Your task to perform on an android device: Search for panasonic triple a on costco, select the first entry, add it to the cart, then select checkout. Image 0: 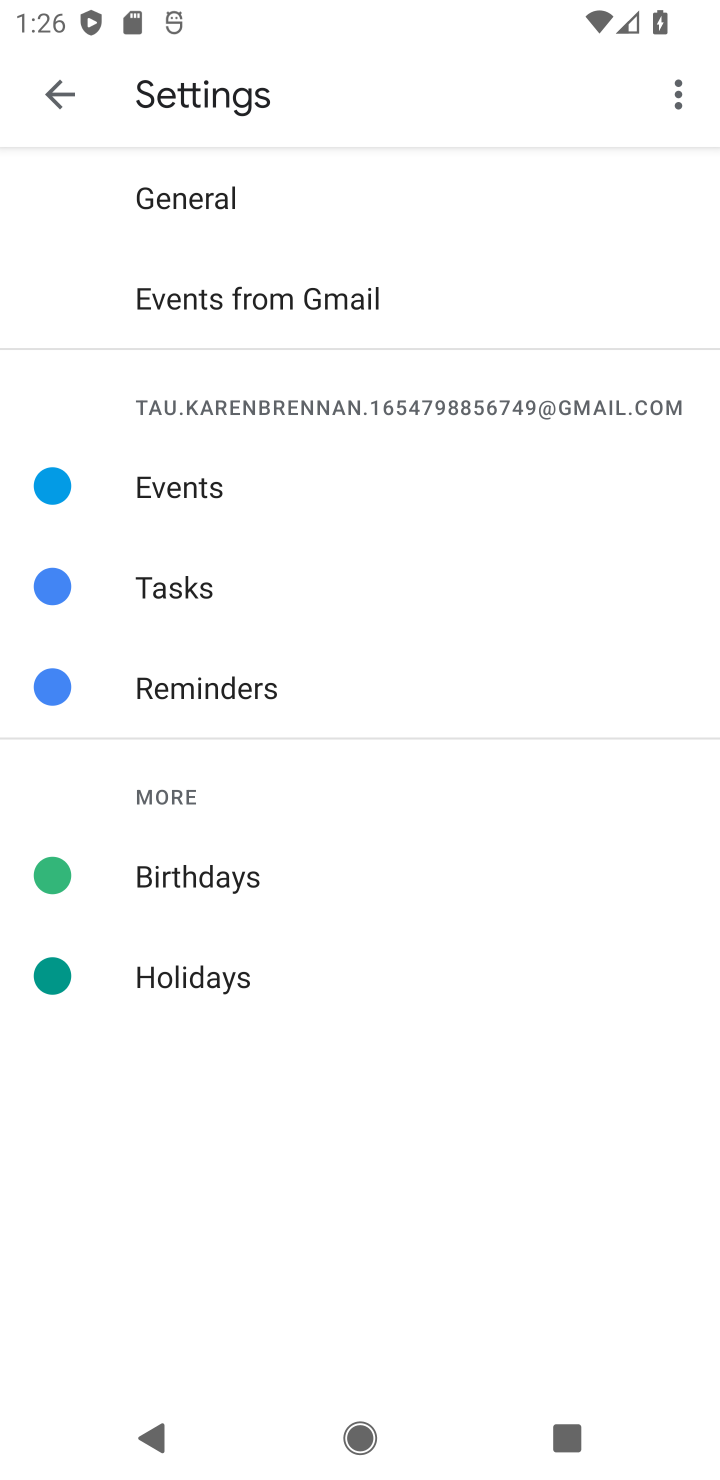
Step 0: press home button
Your task to perform on an android device: Search for panasonic triple a on costco, select the first entry, add it to the cart, then select checkout. Image 1: 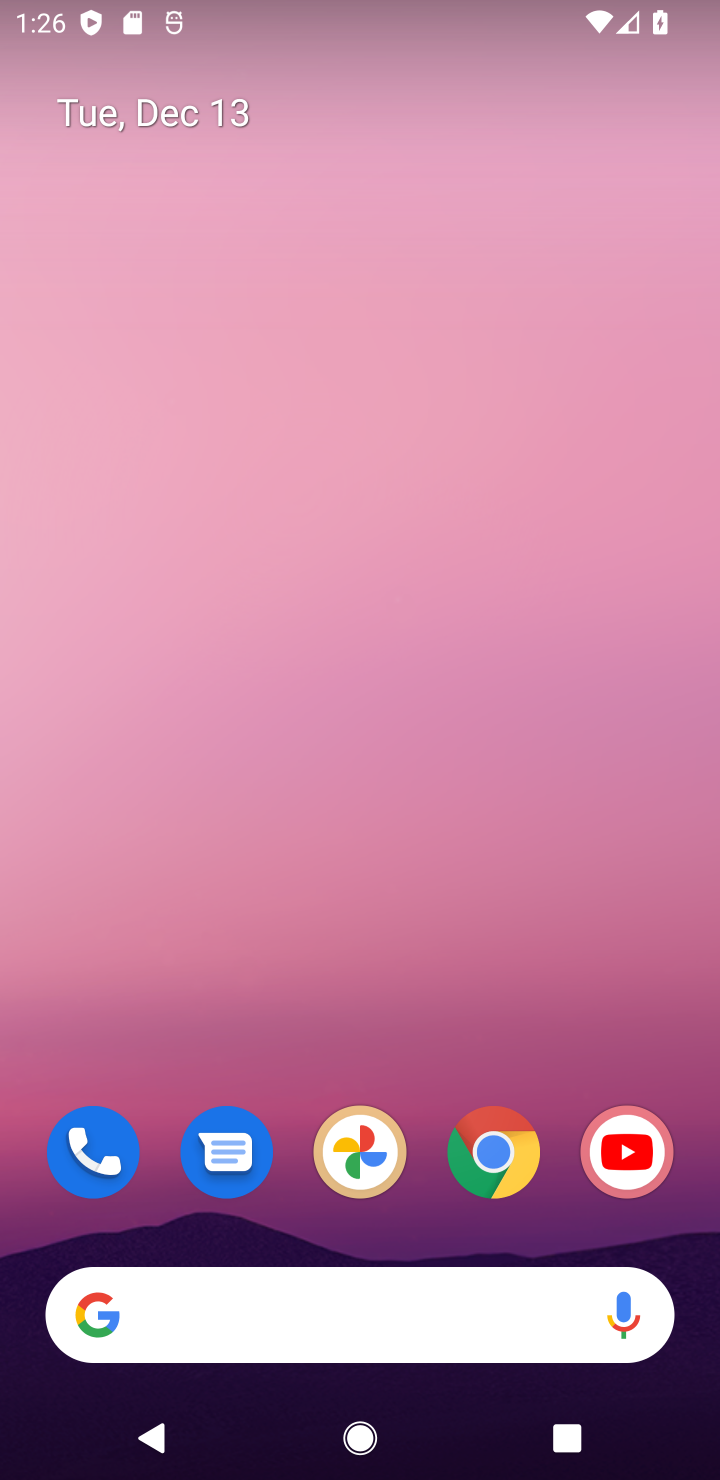
Step 1: drag from (300, 1283) to (300, 237)
Your task to perform on an android device: Search for panasonic triple a on costco, select the first entry, add it to the cart, then select checkout. Image 2: 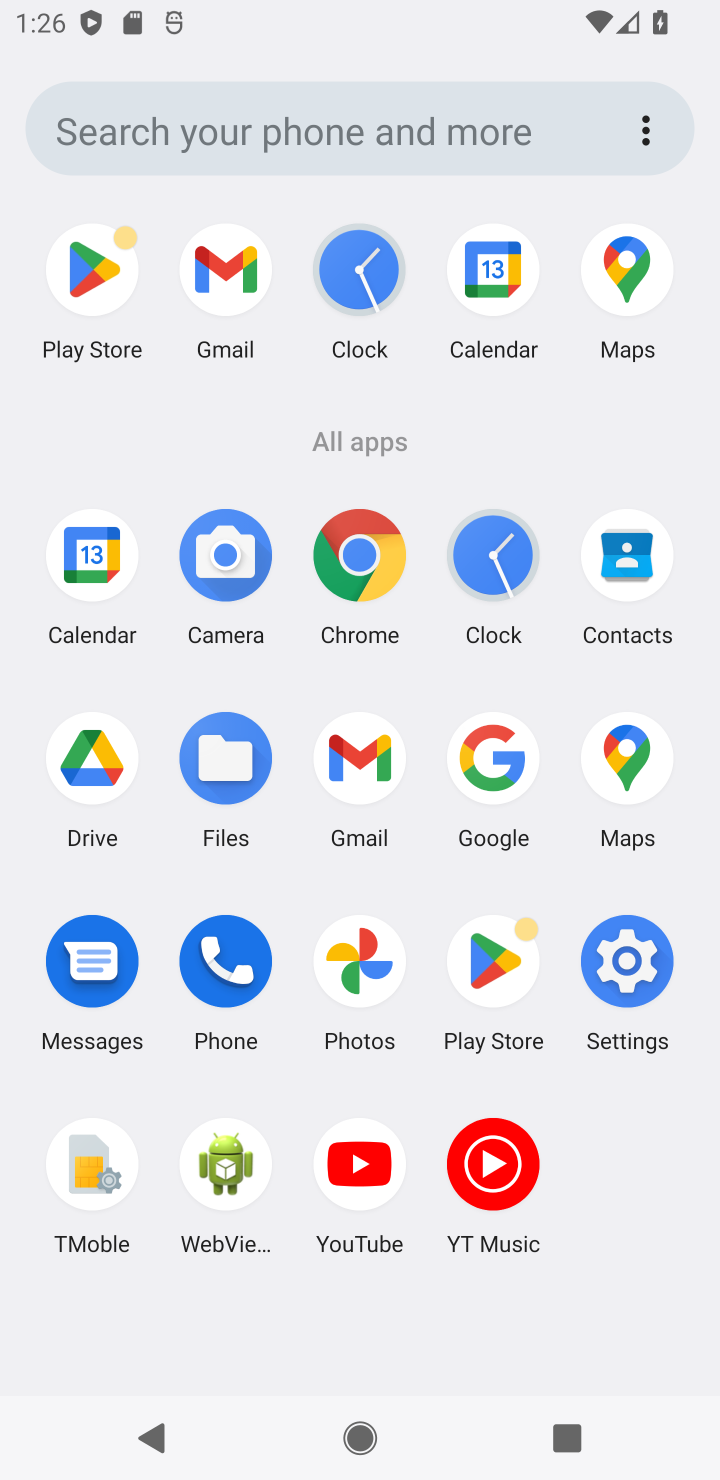
Step 2: click (513, 736)
Your task to perform on an android device: Search for panasonic triple a on costco, select the first entry, add it to the cart, then select checkout. Image 3: 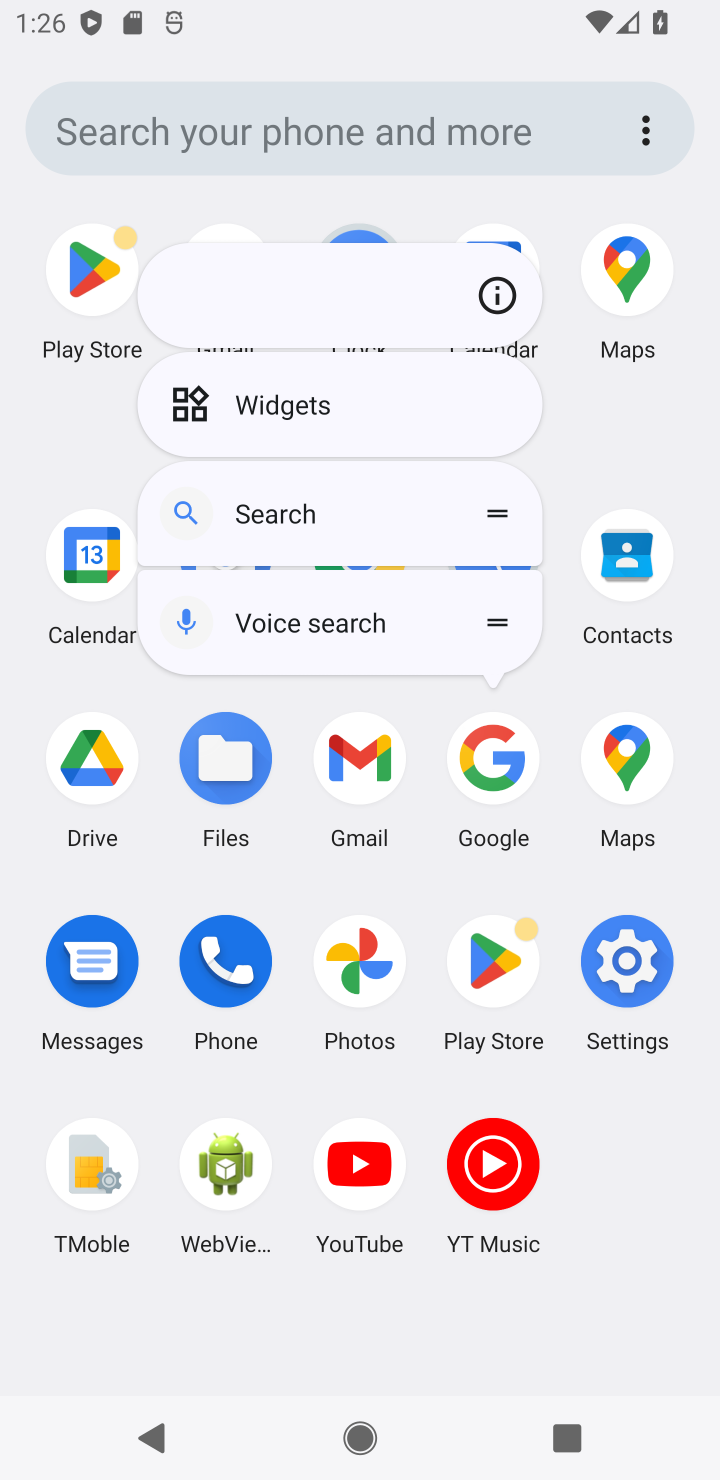
Step 3: click (489, 772)
Your task to perform on an android device: Search for panasonic triple a on costco, select the first entry, add it to the cart, then select checkout. Image 4: 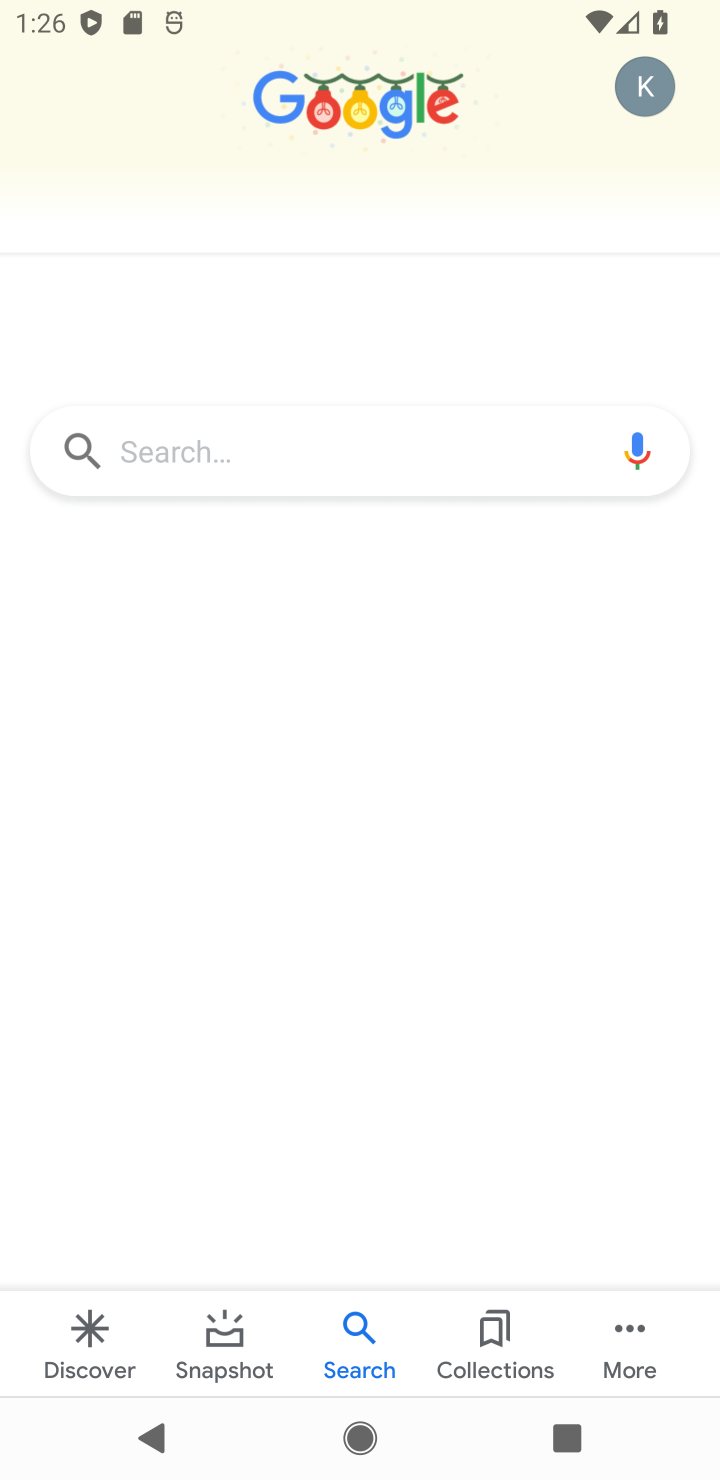
Step 4: click (237, 450)
Your task to perform on an android device: Search for panasonic triple a on costco, select the first entry, add it to the cart, then select checkout. Image 5: 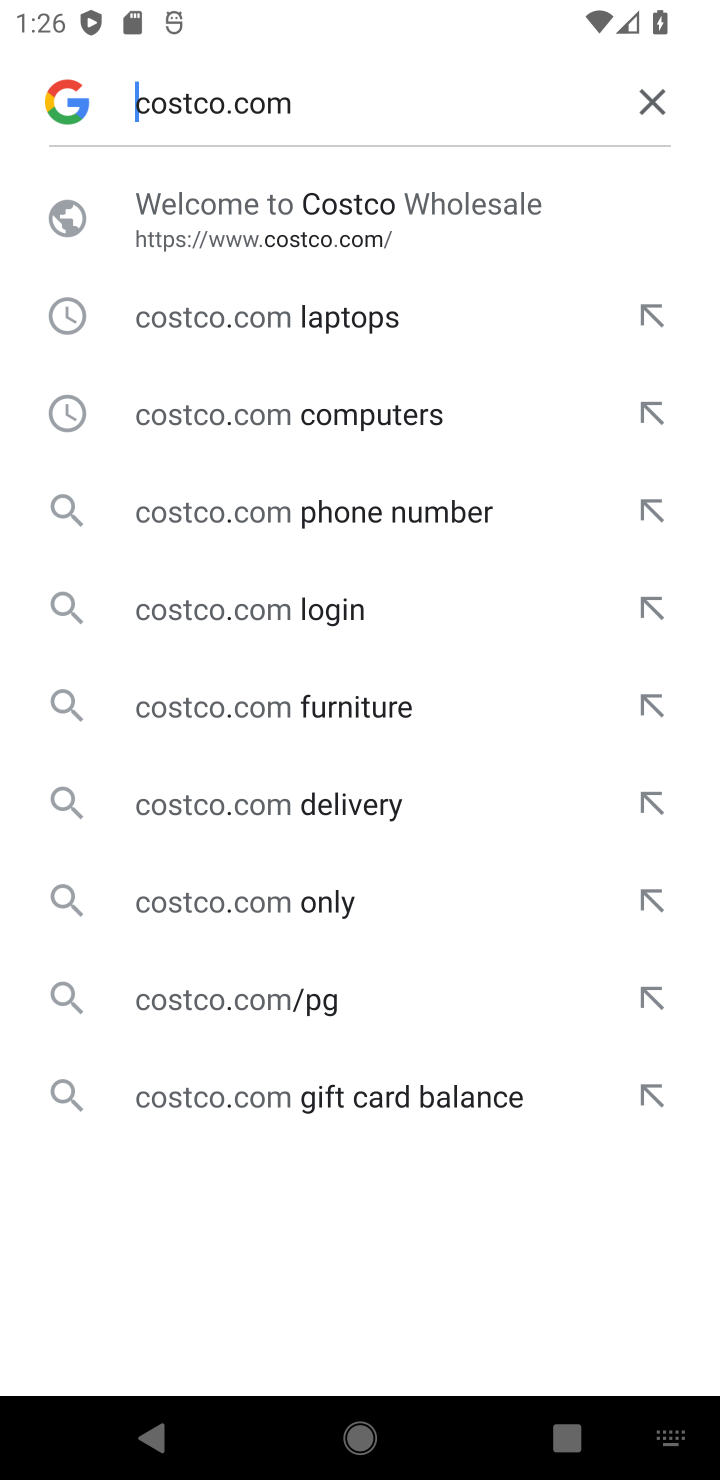
Step 5: click (258, 608)
Your task to perform on an android device: Search for panasonic triple a on costco, select the first entry, add it to the cart, then select checkout. Image 6: 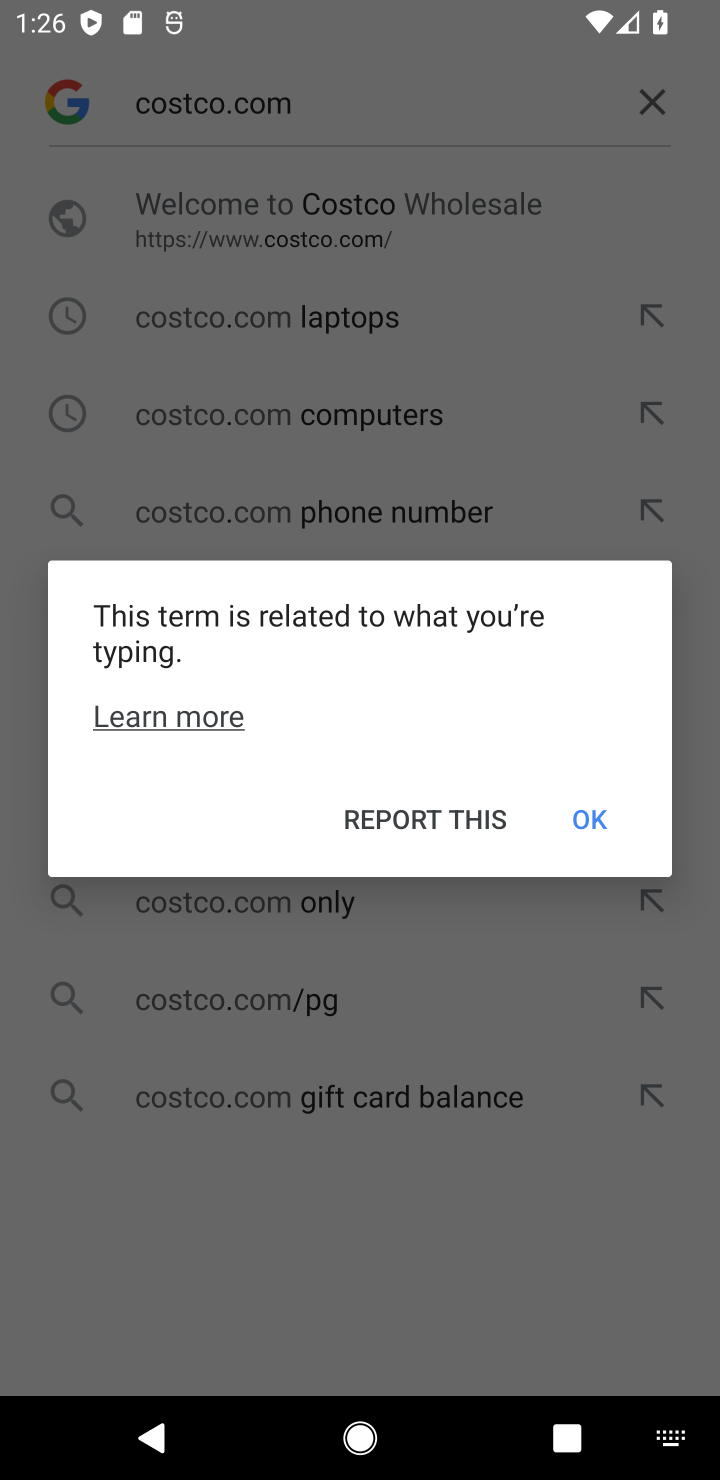
Step 6: click (598, 806)
Your task to perform on an android device: Search for panasonic triple a on costco, select the first entry, add it to the cart, then select checkout. Image 7: 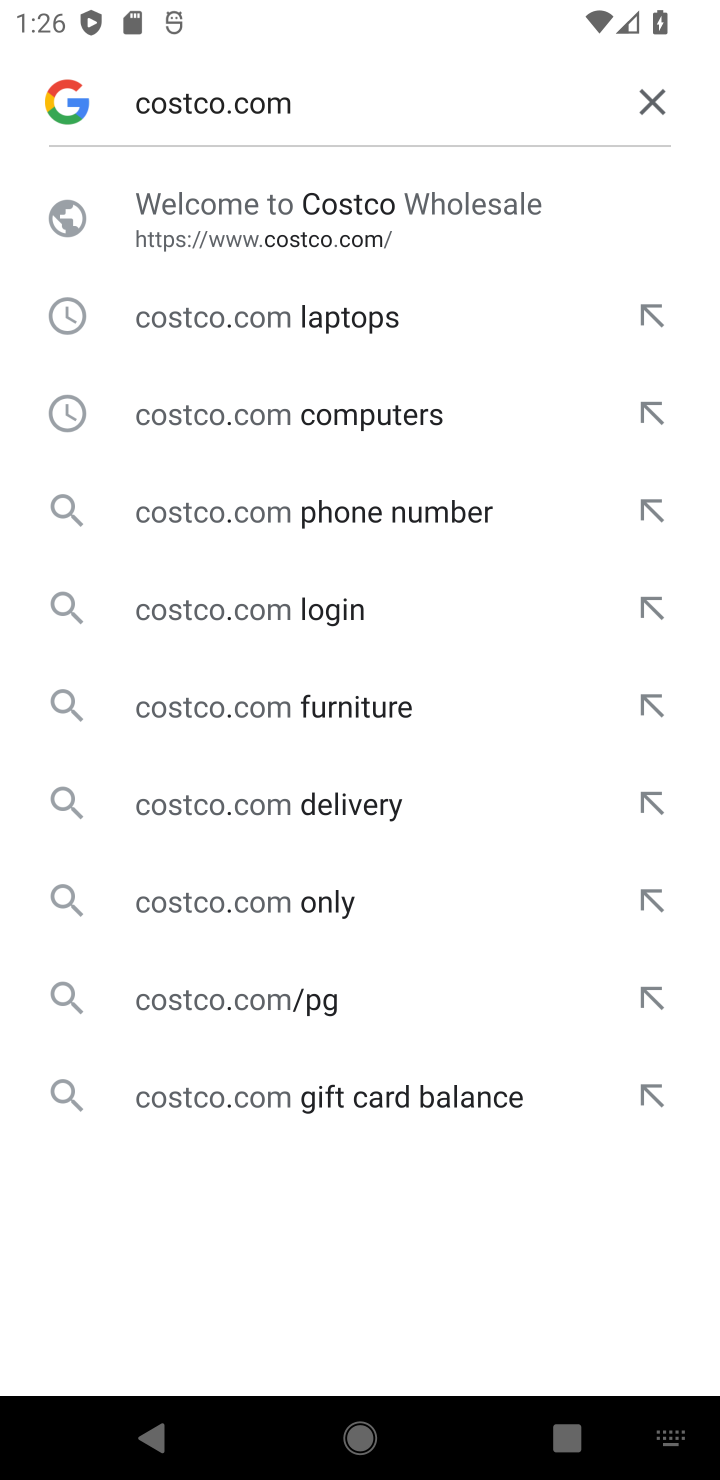
Step 7: click (274, 231)
Your task to perform on an android device: Search for panasonic triple a on costco, select the first entry, add it to the cart, then select checkout. Image 8: 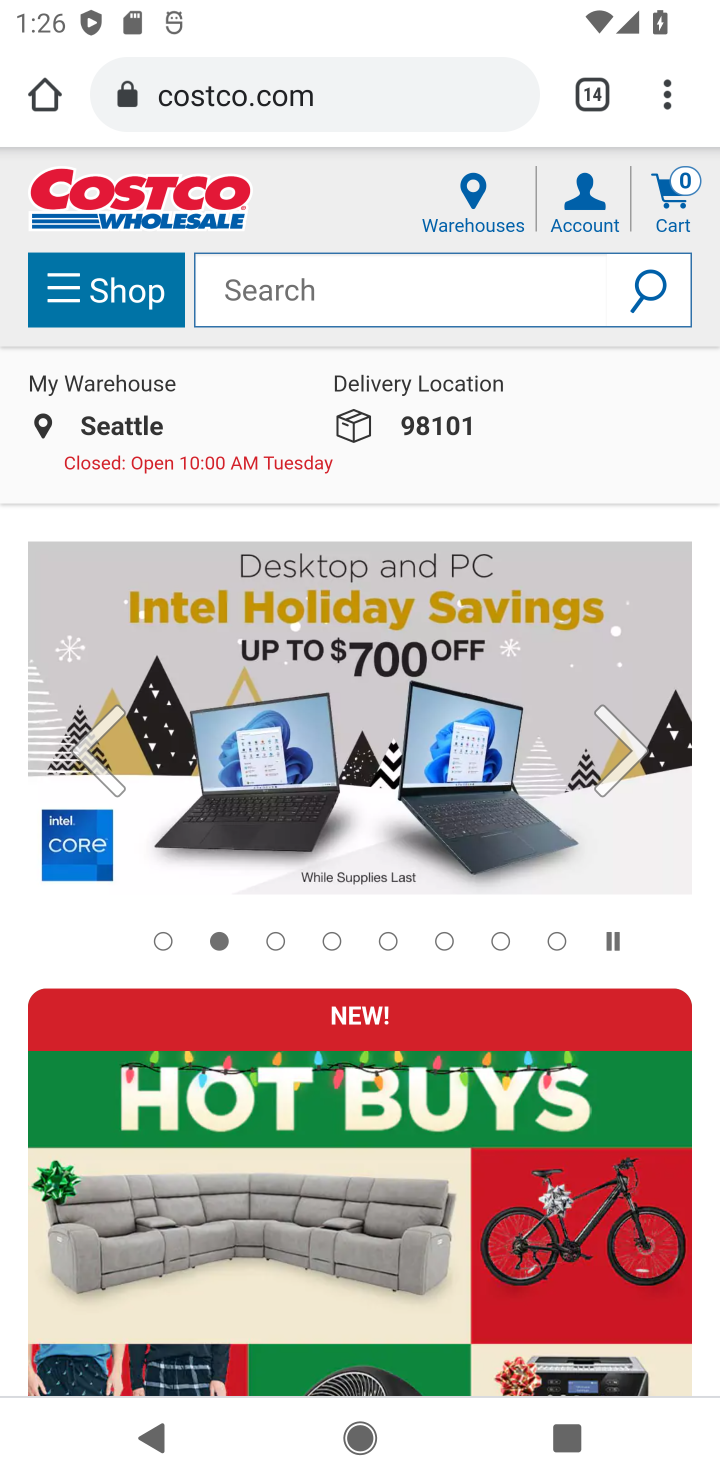
Step 8: click (313, 290)
Your task to perform on an android device: Search for panasonic triple a on costco, select the first entry, add it to the cart, then select checkout. Image 9: 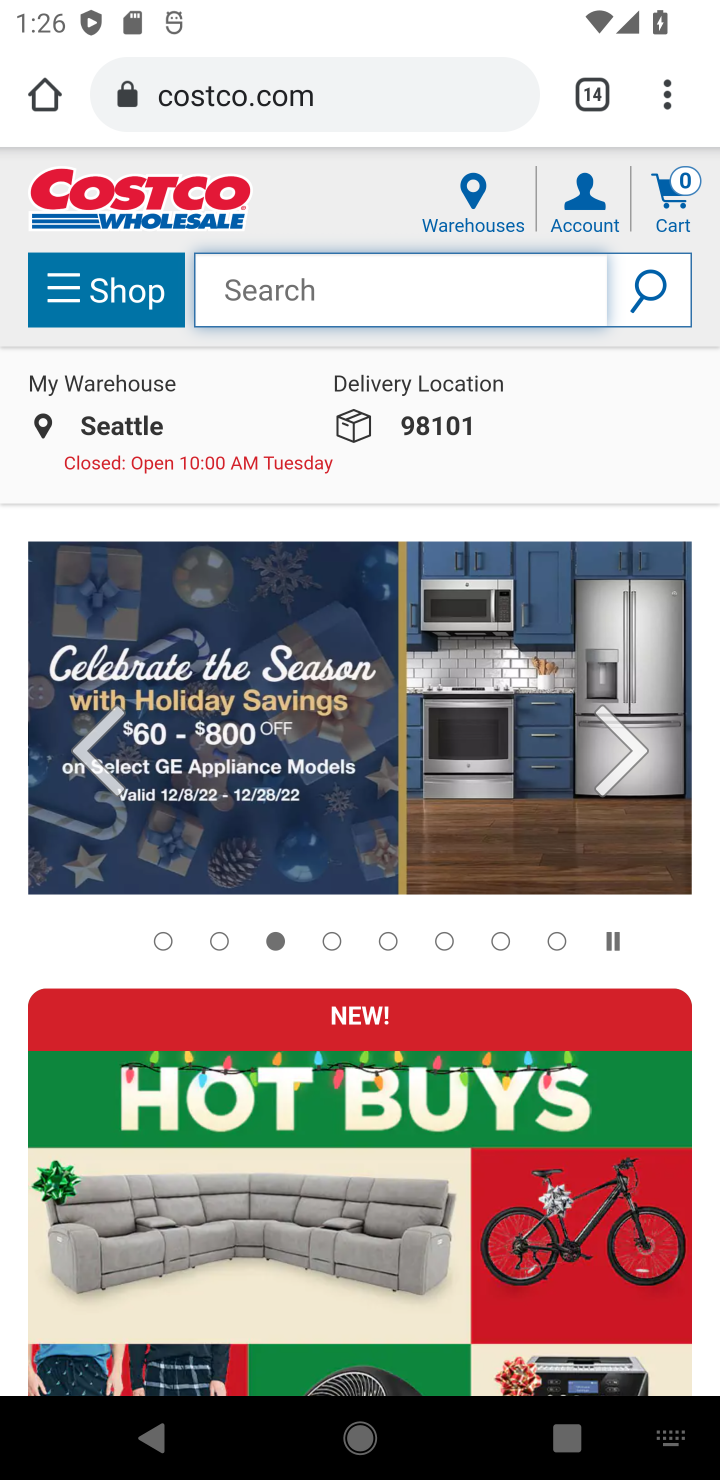
Step 9: type "panasonic triple a"
Your task to perform on an android device: Search for panasonic triple a on costco, select the first entry, add it to the cart, then select checkout. Image 10: 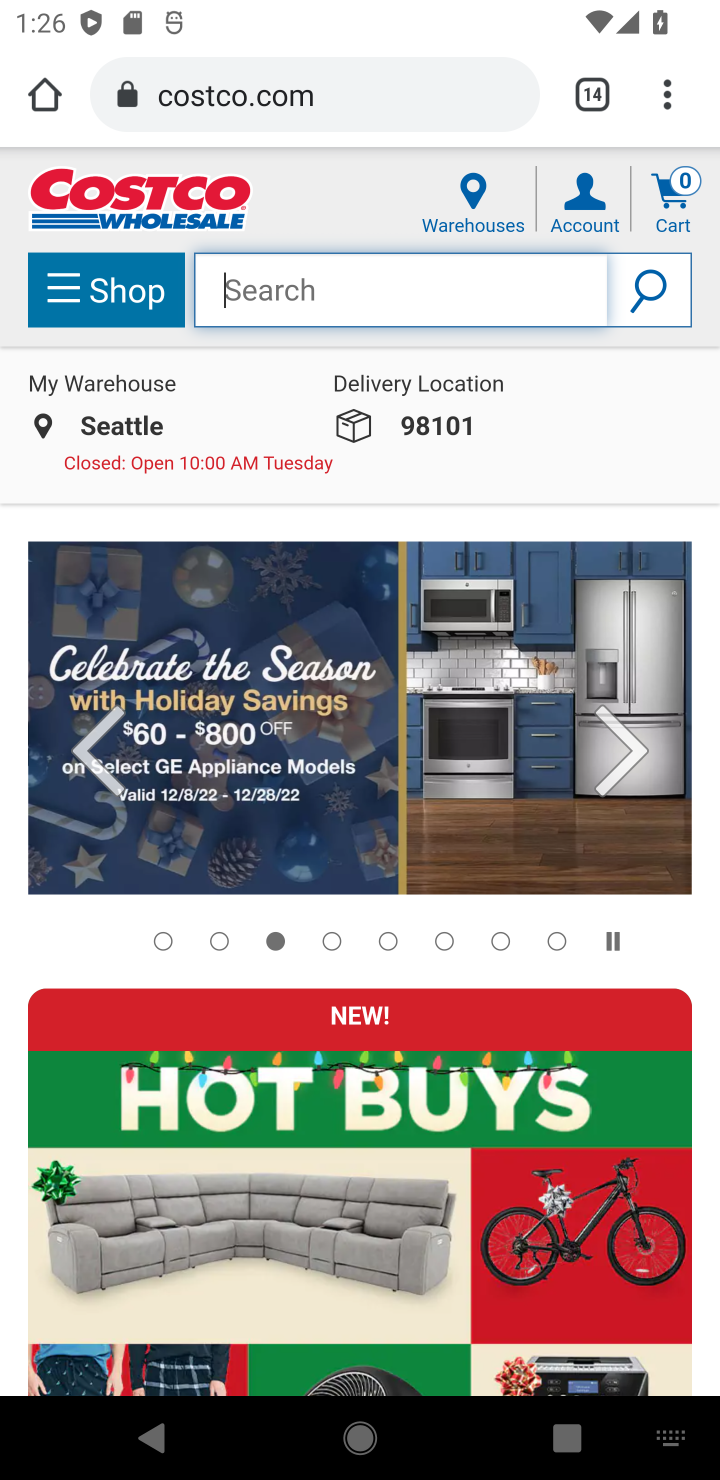
Step 10: click (648, 293)
Your task to perform on an android device: Search for panasonic triple a on costco, select the first entry, add it to the cart, then select checkout. Image 11: 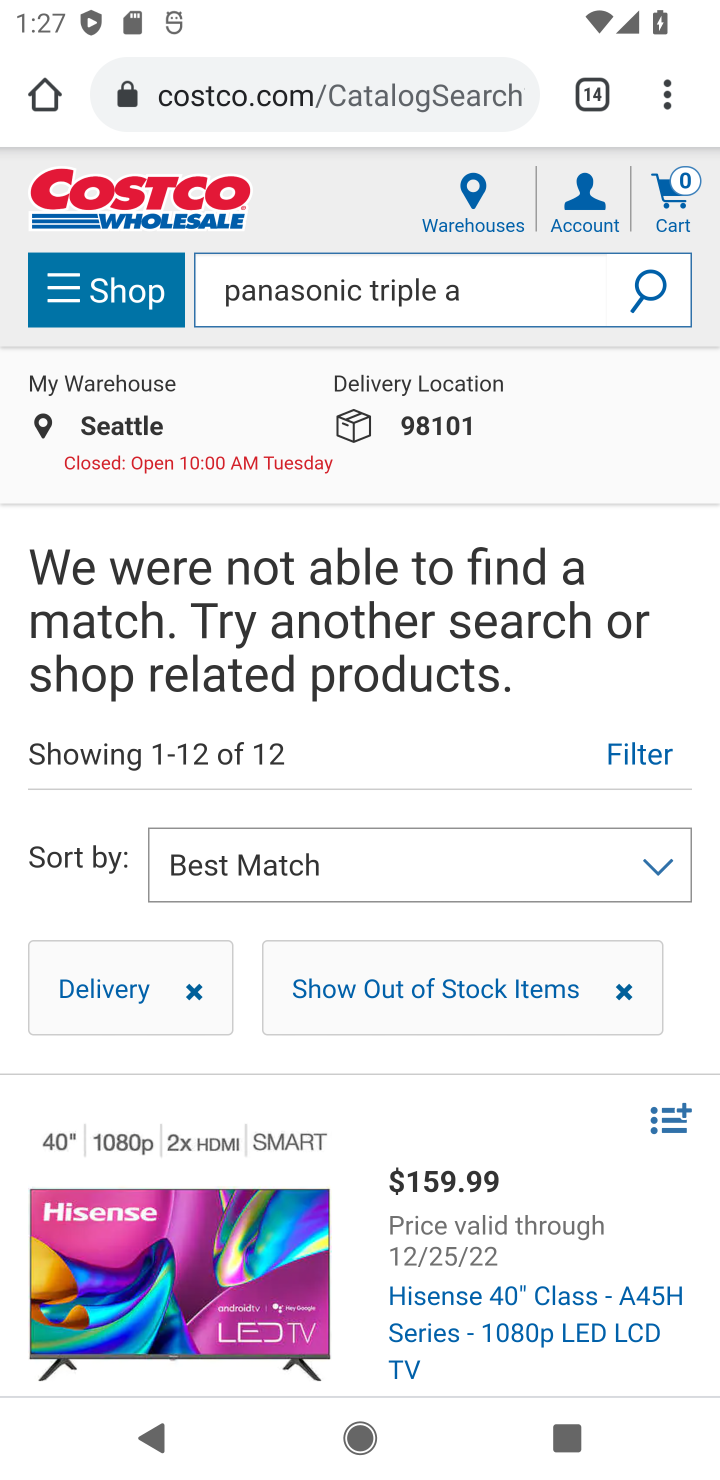
Step 11: drag from (474, 1327) to (496, 642)
Your task to perform on an android device: Search for panasonic triple a on costco, select the first entry, add it to the cart, then select checkout. Image 12: 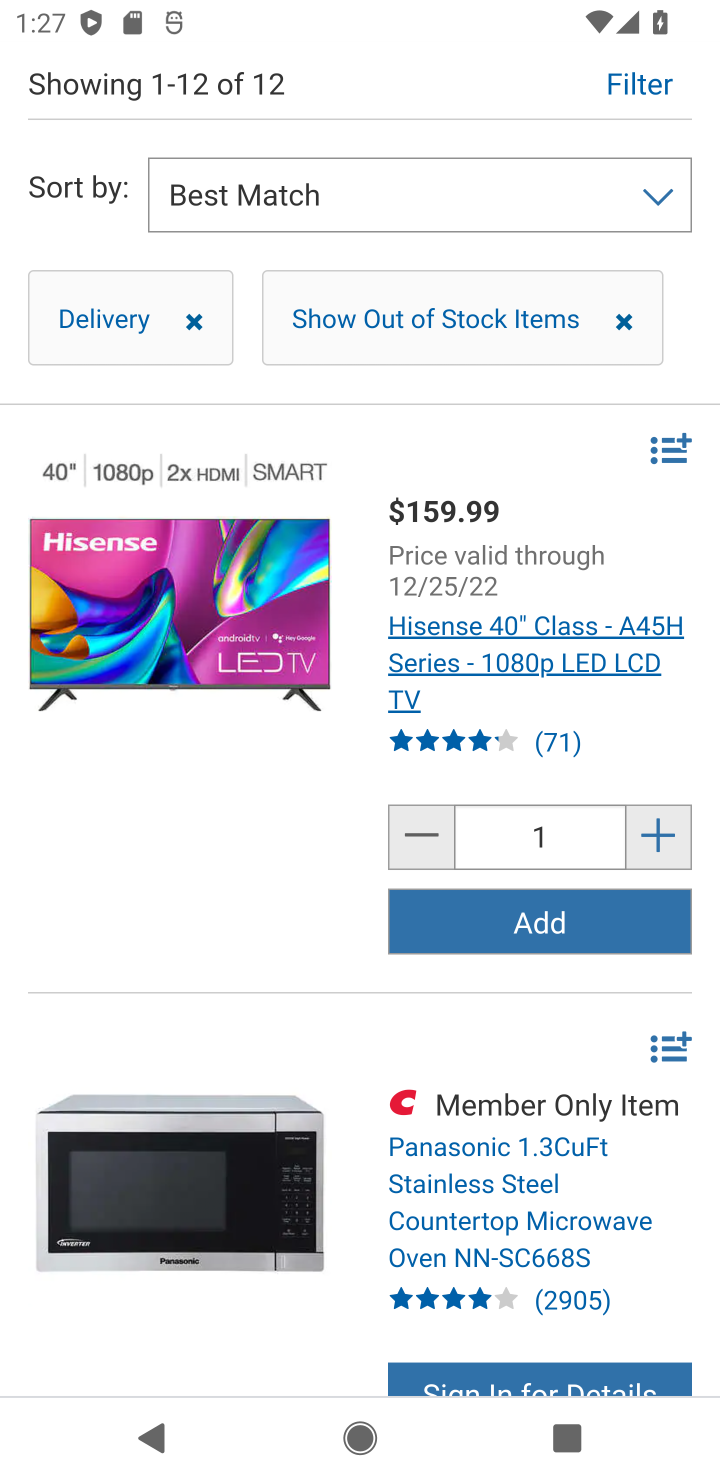
Step 12: click (543, 924)
Your task to perform on an android device: Search for panasonic triple a on costco, select the first entry, add it to the cart, then select checkout. Image 13: 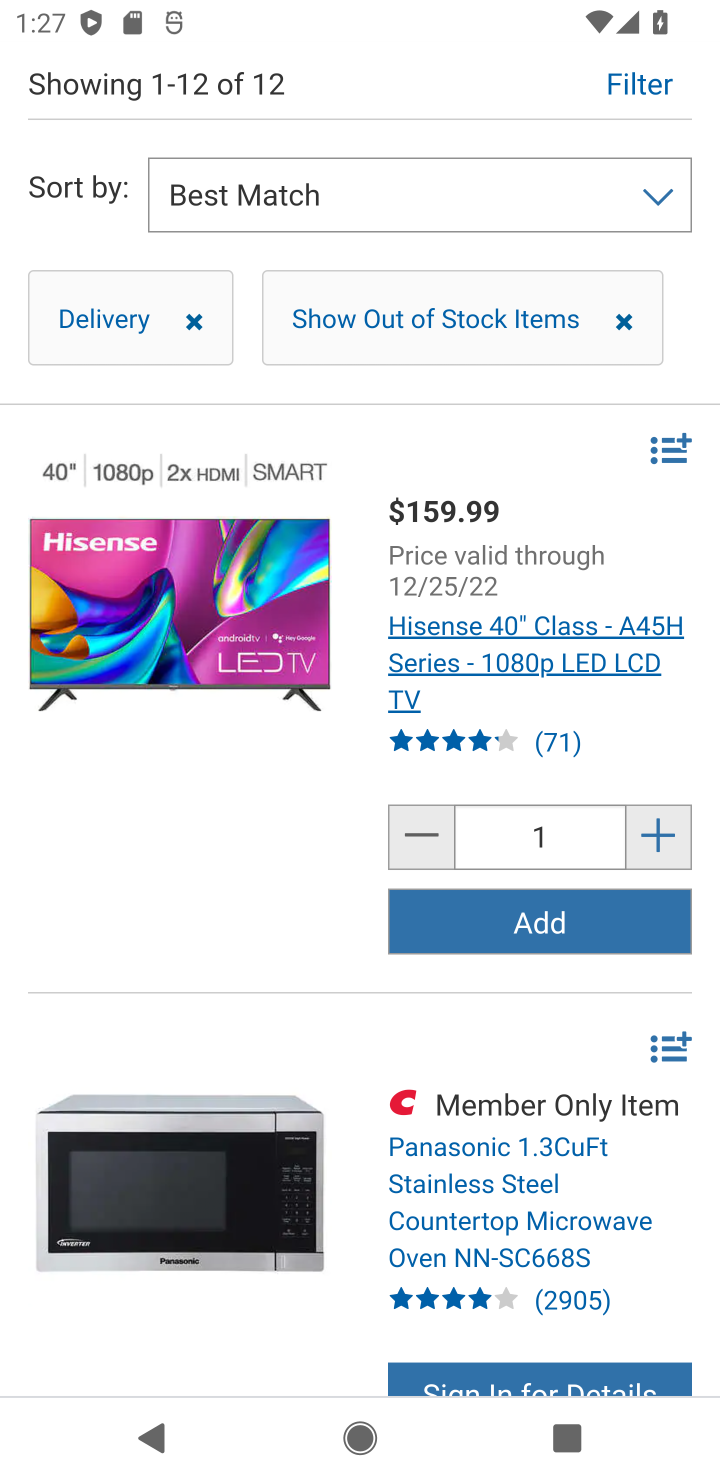
Step 13: click (419, 924)
Your task to perform on an android device: Search for panasonic triple a on costco, select the first entry, add it to the cart, then select checkout. Image 14: 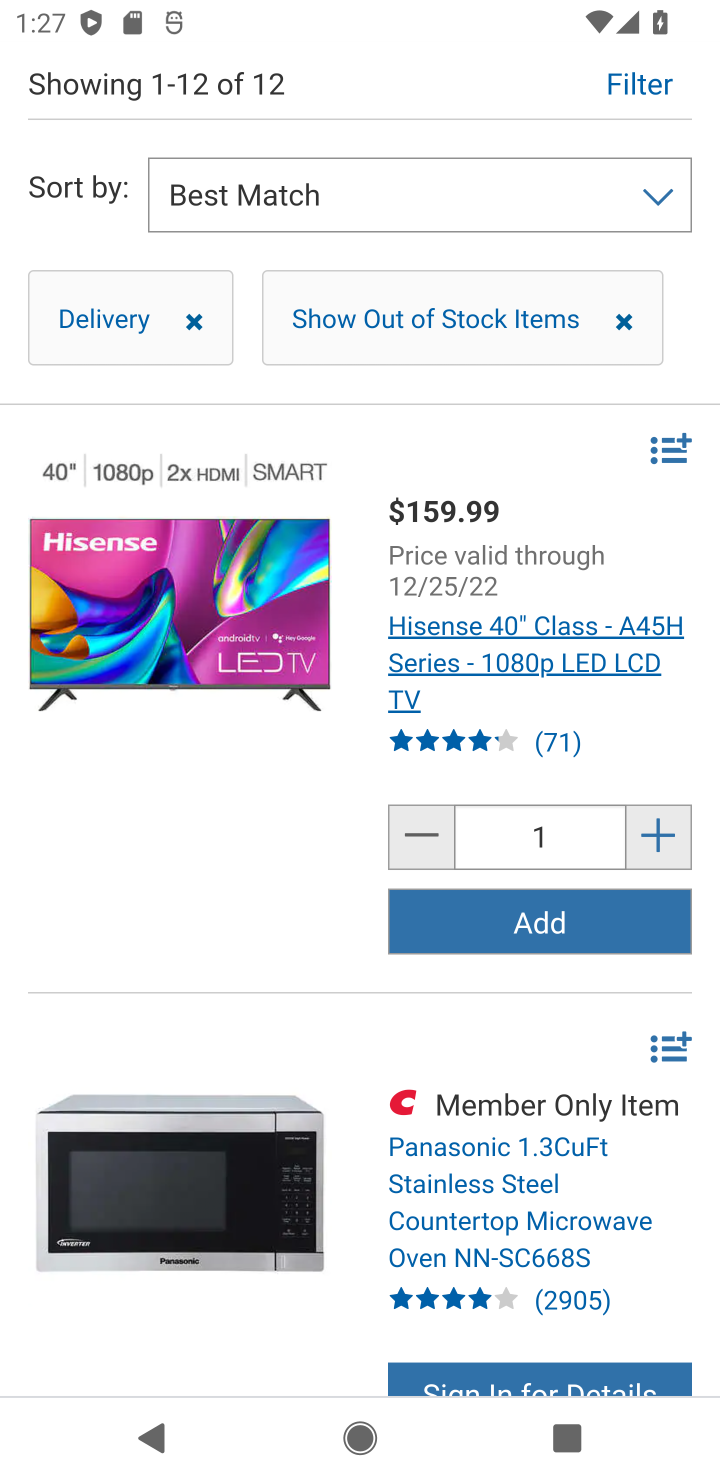
Step 14: click (538, 936)
Your task to perform on an android device: Search for panasonic triple a on costco, select the first entry, add it to the cart, then select checkout. Image 15: 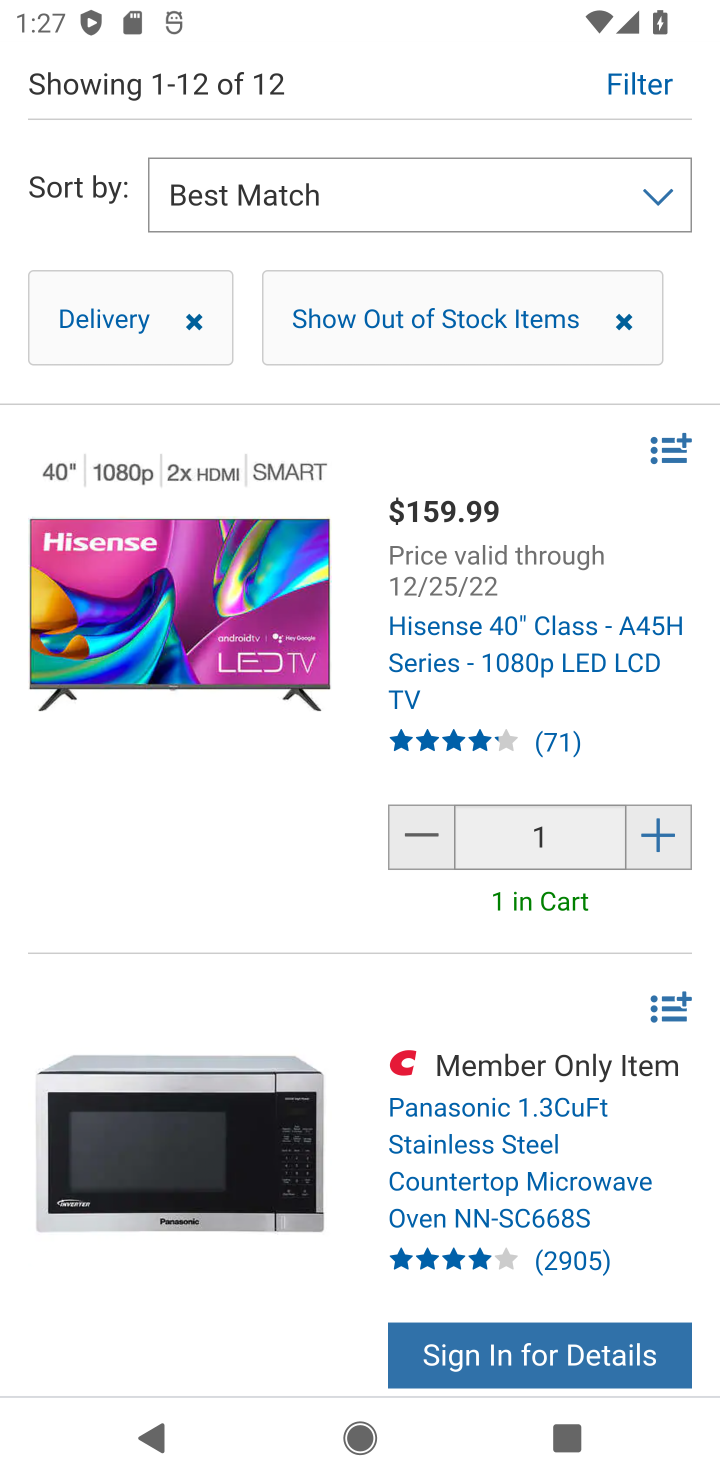
Step 15: drag from (571, 408) to (663, 1311)
Your task to perform on an android device: Search for panasonic triple a on costco, select the first entry, add it to the cart, then select checkout. Image 16: 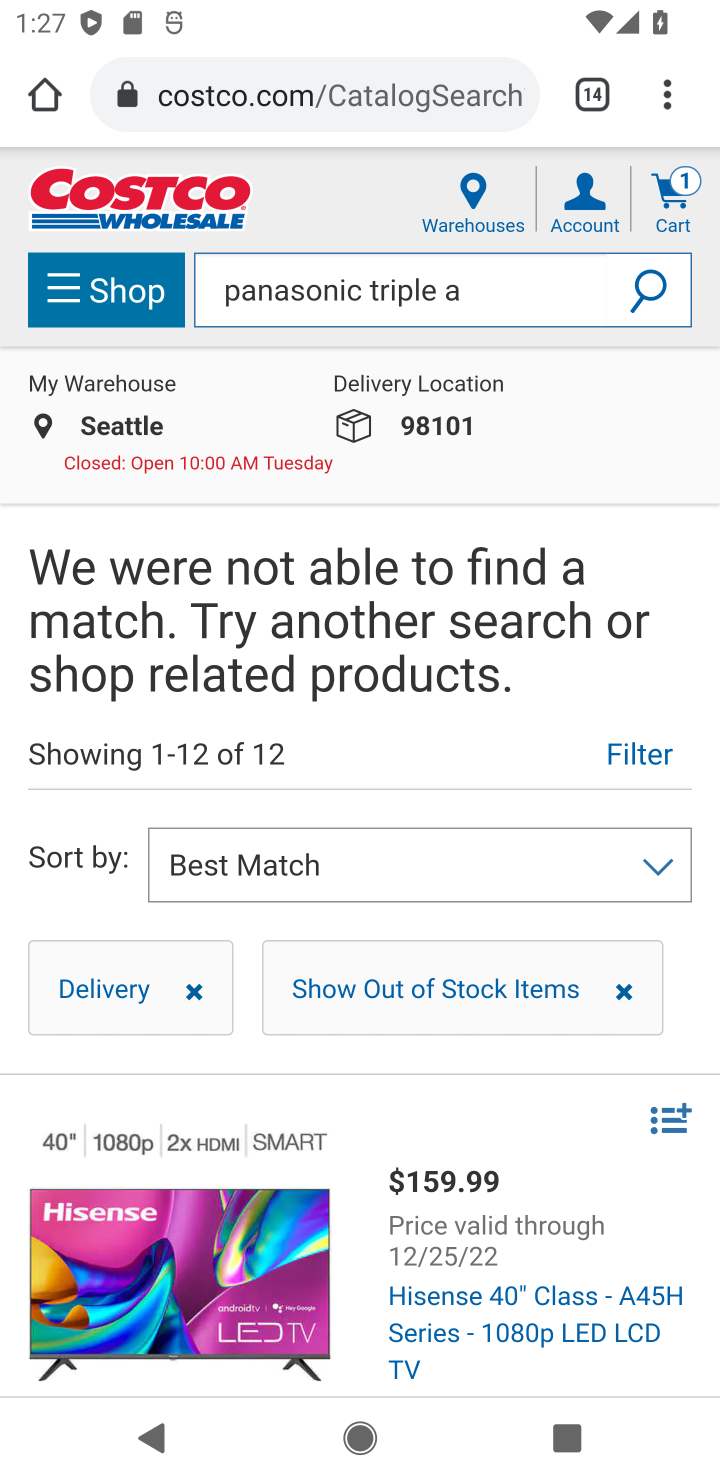
Step 16: click (665, 184)
Your task to perform on an android device: Search for panasonic triple a on costco, select the first entry, add it to the cart, then select checkout. Image 17: 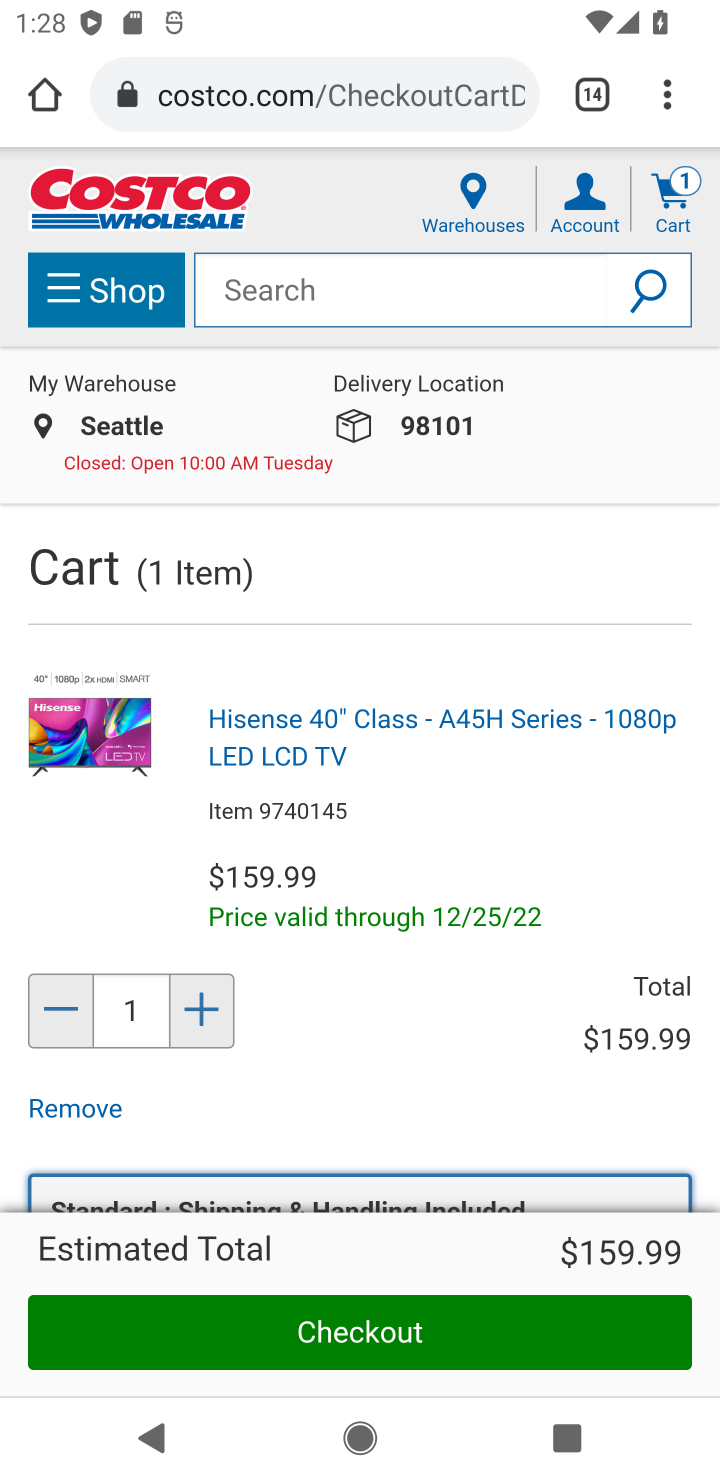
Step 17: drag from (394, 1097) to (394, 460)
Your task to perform on an android device: Search for panasonic triple a on costco, select the first entry, add it to the cart, then select checkout. Image 18: 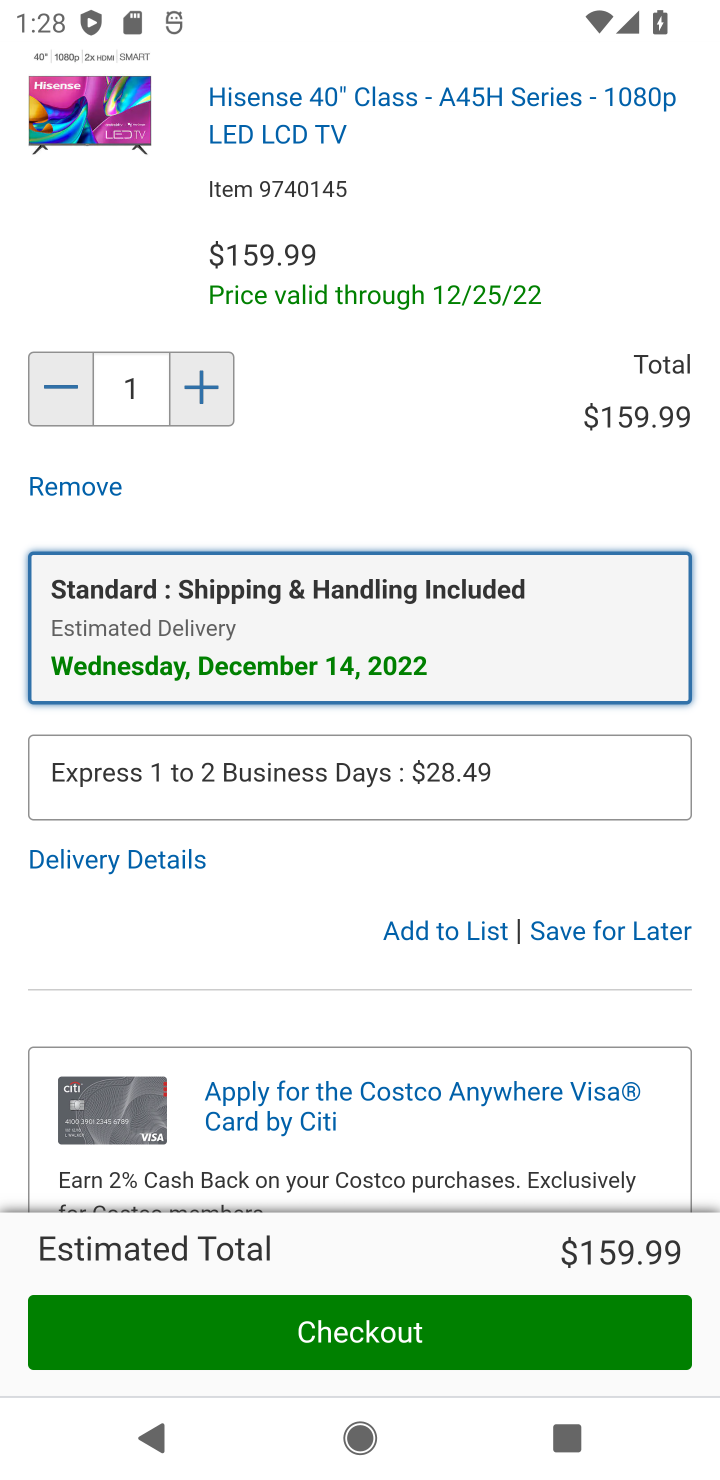
Step 18: click (337, 1323)
Your task to perform on an android device: Search for panasonic triple a on costco, select the first entry, add it to the cart, then select checkout. Image 19: 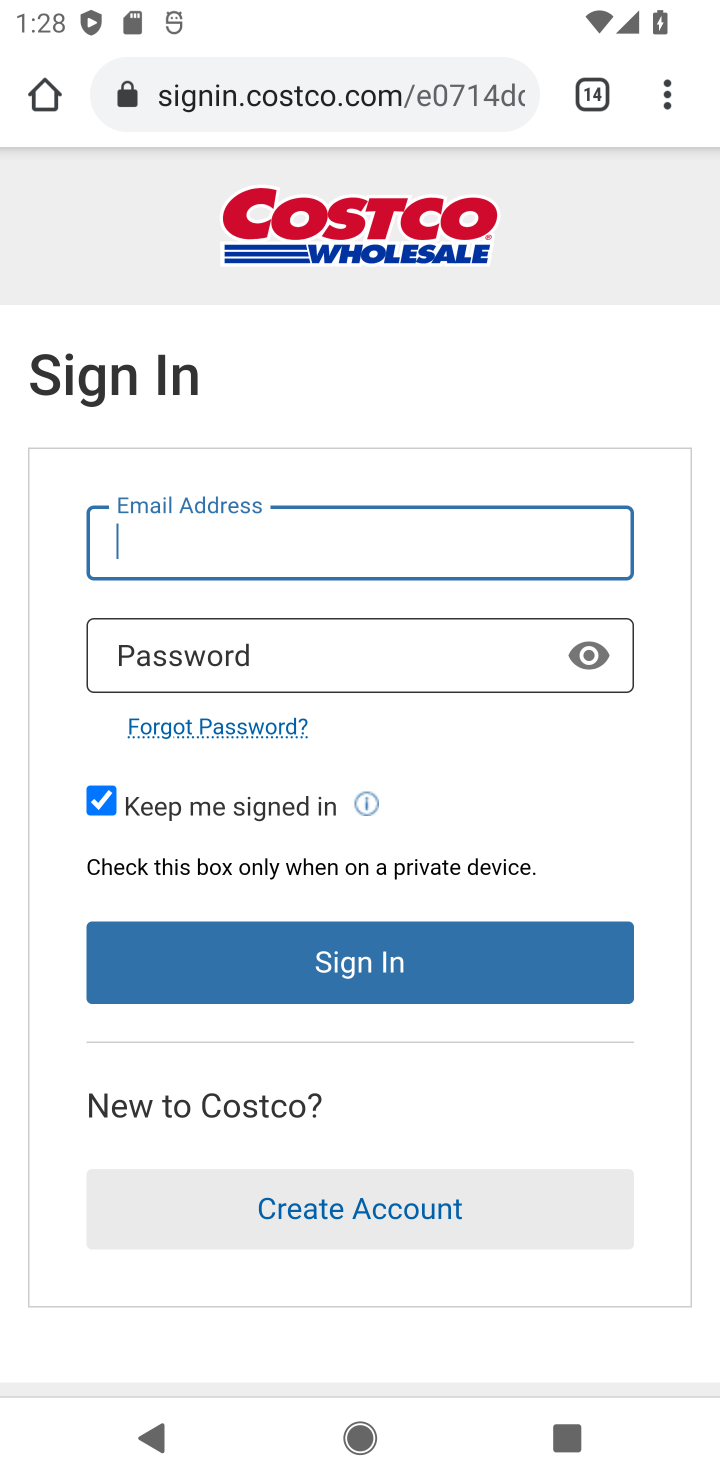
Step 19: task complete